Your task to perform on an android device: turn off javascript in the chrome app Image 0: 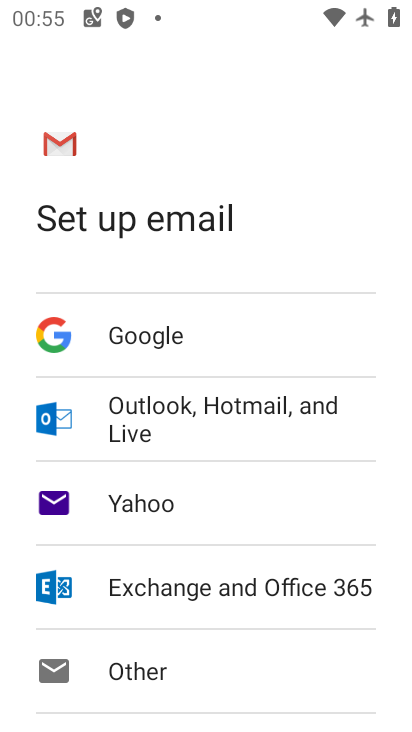
Step 0: press home button
Your task to perform on an android device: turn off javascript in the chrome app Image 1: 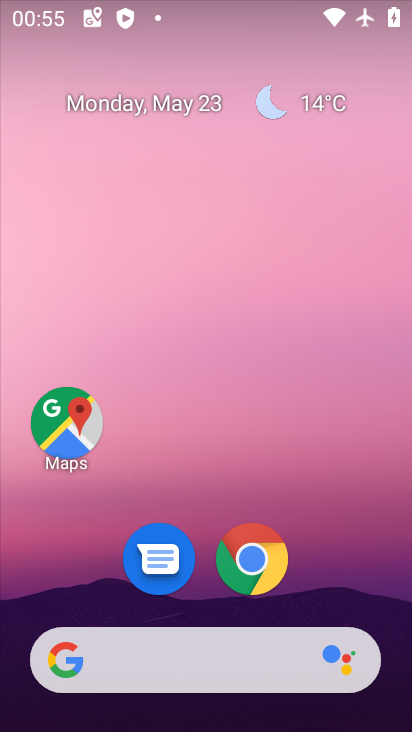
Step 1: click (265, 553)
Your task to perform on an android device: turn off javascript in the chrome app Image 2: 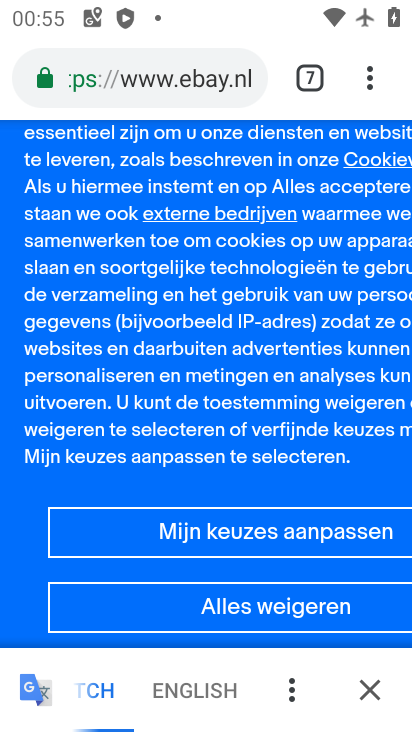
Step 2: click (366, 81)
Your task to perform on an android device: turn off javascript in the chrome app Image 3: 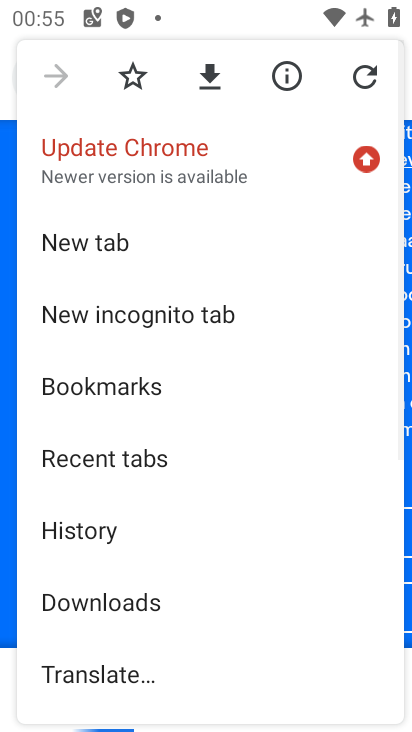
Step 3: drag from (217, 561) to (230, 117)
Your task to perform on an android device: turn off javascript in the chrome app Image 4: 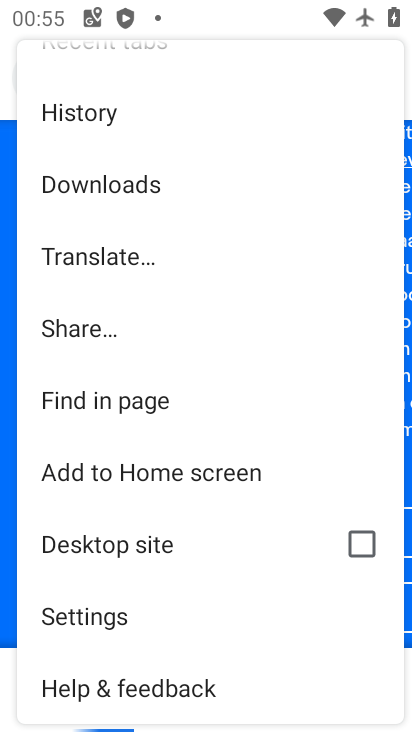
Step 4: click (112, 620)
Your task to perform on an android device: turn off javascript in the chrome app Image 5: 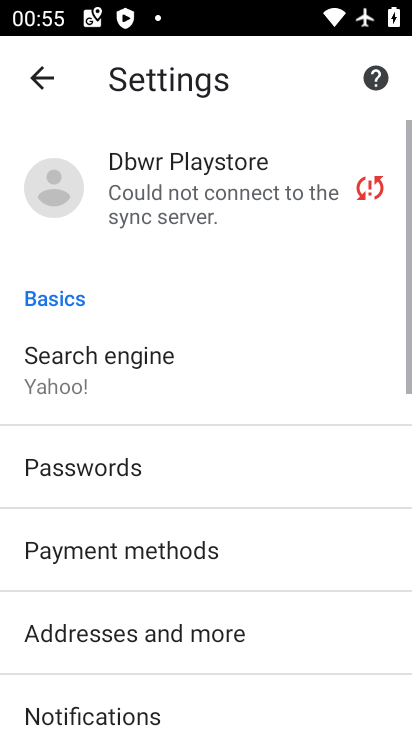
Step 5: drag from (185, 594) to (214, 90)
Your task to perform on an android device: turn off javascript in the chrome app Image 6: 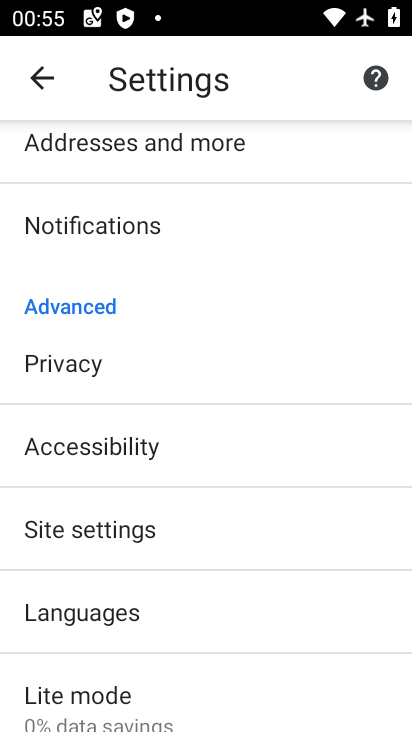
Step 6: click (101, 533)
Your task to perform on an android device: turn off javascript in the chrome app Image 7: 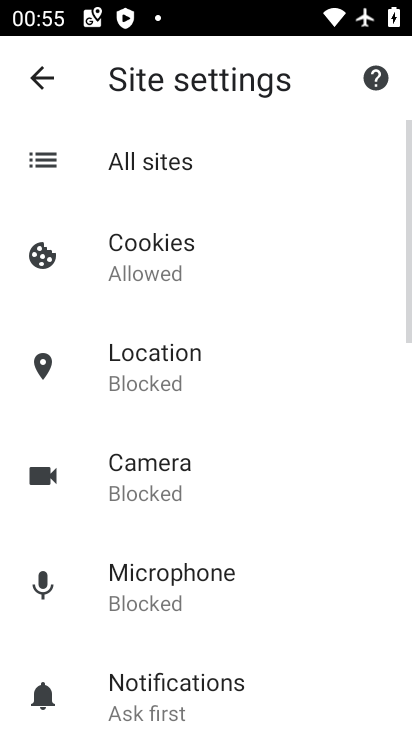
Step 7: drag from (285, 583) to (301, 292)
Your task to perform on an android device: turn off javascript in the chrome app Image 8: 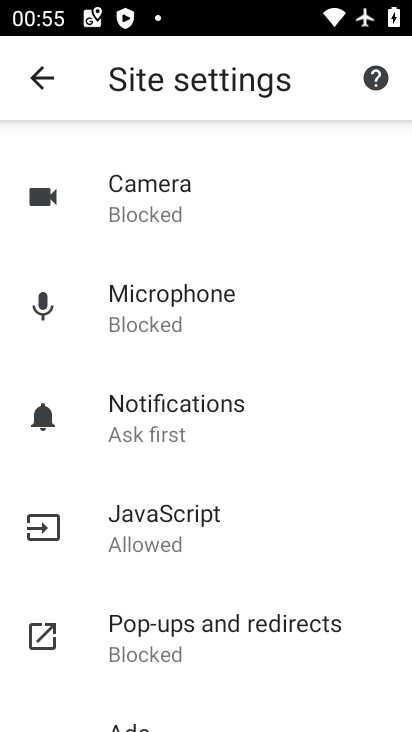
Step 8: click (161, 525)
Your task to perform on an android device: turn off javascript in the chrome app Image 9: 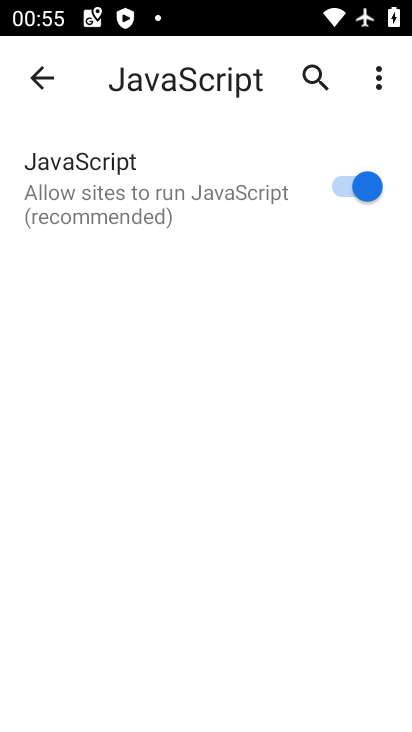
Step 9: click (356, 191)
Your task to perform on an android device: turn off javascript in the chrome app Image 10: 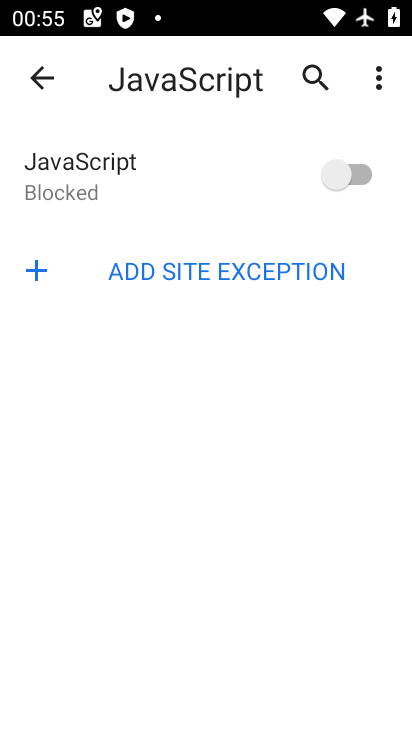
Step 10: task complete